Your task to perform on an android device: Open the map Image 0: 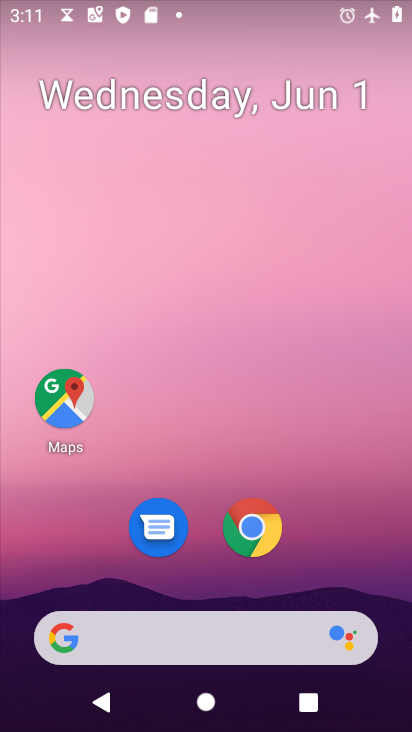
Step 0: click (65, 400)
Your task to perform on an android device: Open the map Image 1: 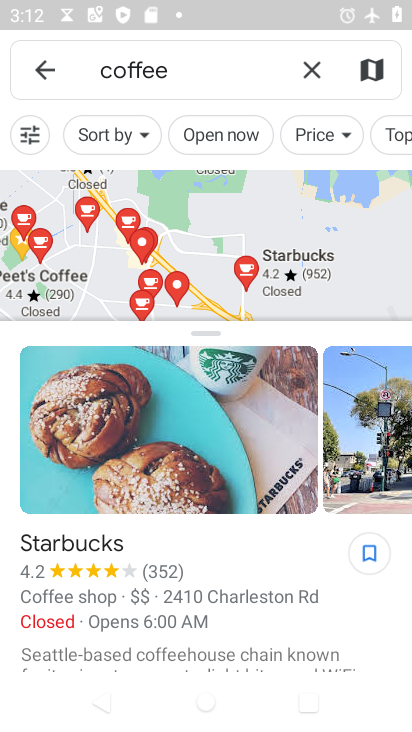
Step 1: click (307, 74)
Your task to perform on an android device: Open the map Image 2: 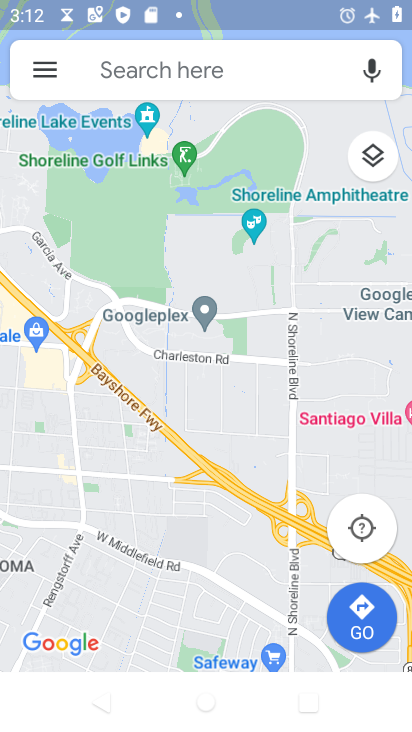
Step 2: task complete